Your task to perform on an android device: change the clock display to digital Image 0: 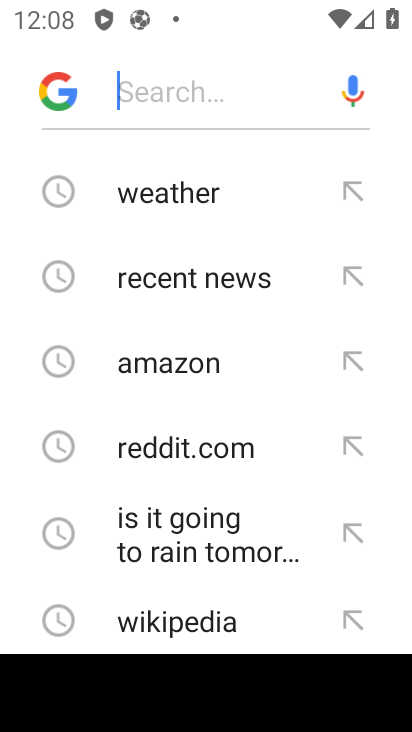
Step 0: press home button
Your task to perform on an android device: change the clock display to digital Image 1: 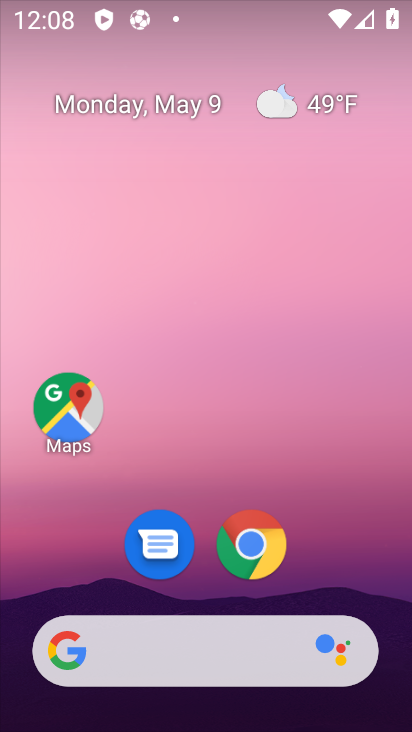
Step 1: drag from (268, 657) to (232, 5)
Your task to perform on an android device: change the clock display to digital Image 2: 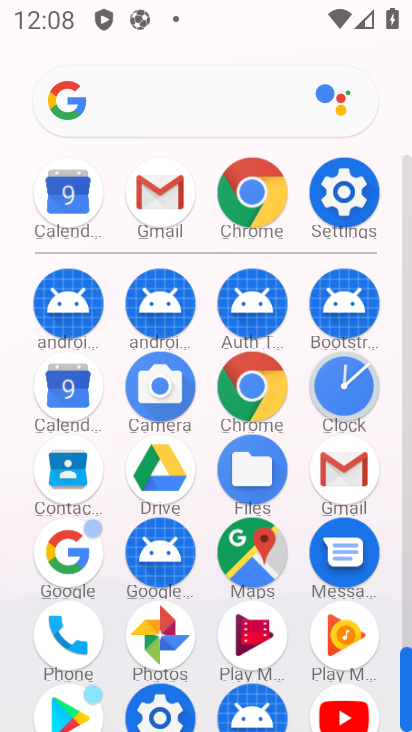
Step 2: click (337, 404)
Your task to perform on an android device: change the clock display to digital Image 3: 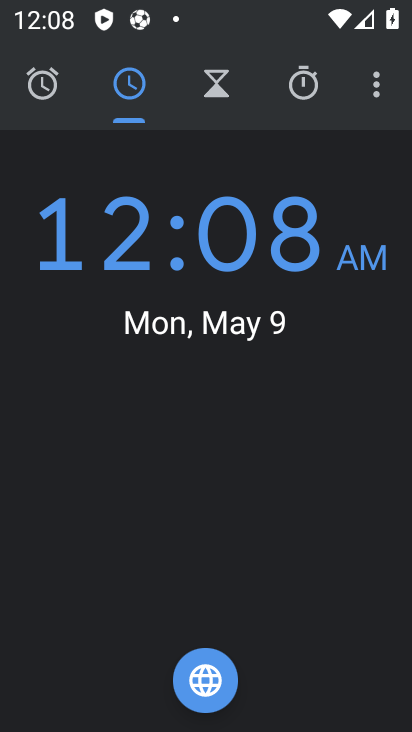
Step 3: click (378, 88)
Your task to perform on an android device: change the clock display to digital Image 4: 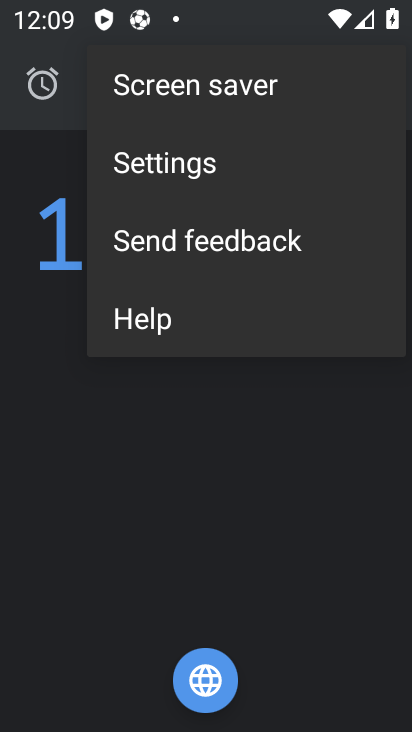
Step 4: click (224, 169)
Your task to perform on an android device: change the clock display to digital Image 5: 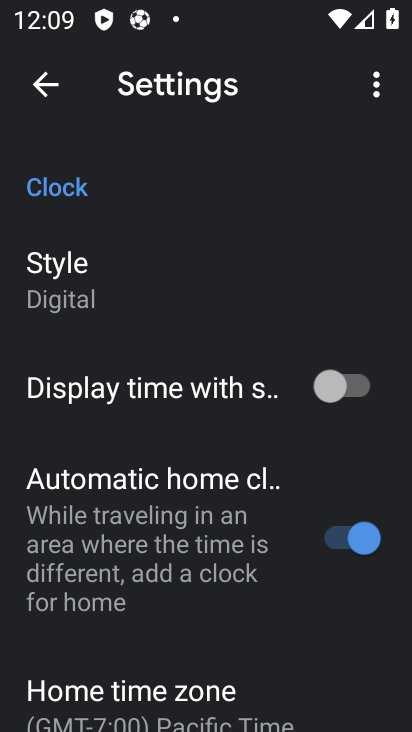
Step 5: click (132, 291)
Your task to perform on an android device: change the clock display to digital Image 6: 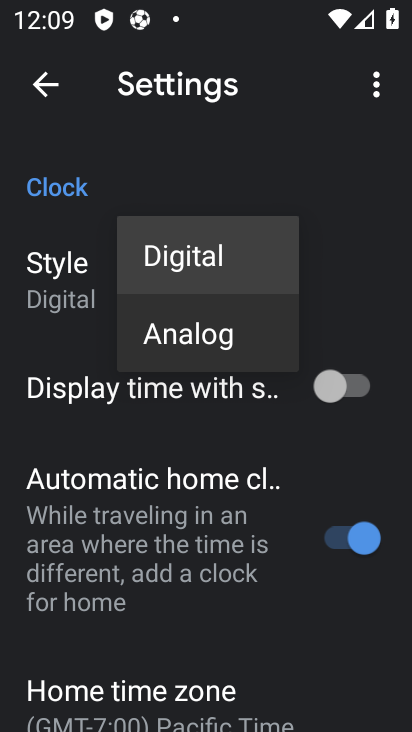
Step 6: click (222, 262)
Your task to perform on an android device: change the clock display to digital Image 7: 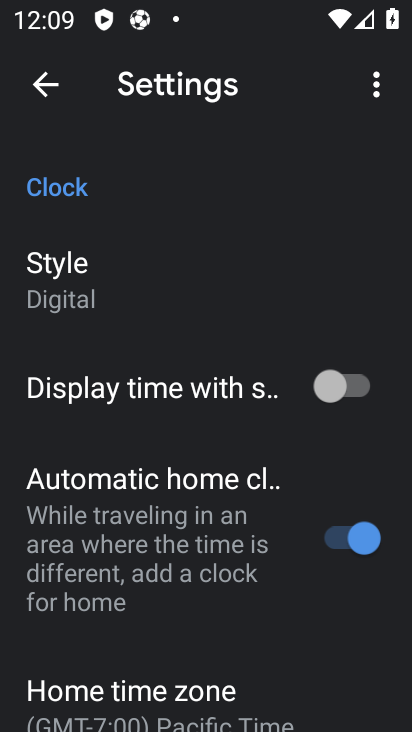
Step 7: task complete